Your task to perform on an android device: toggle wifi Image 0: 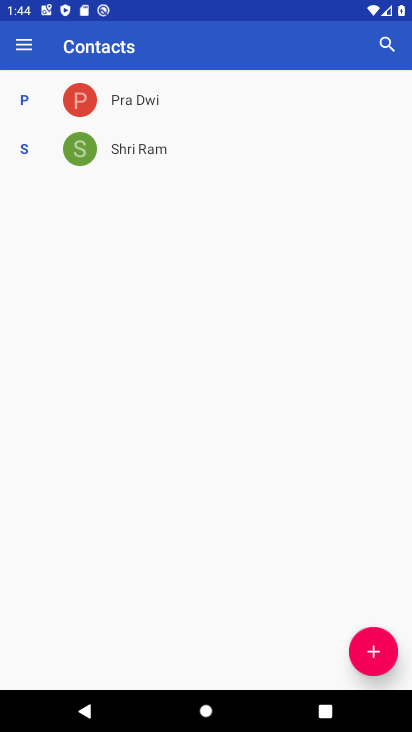
Step 0: press home button
Your task to perform on an android device: toggle wifi Image 1: 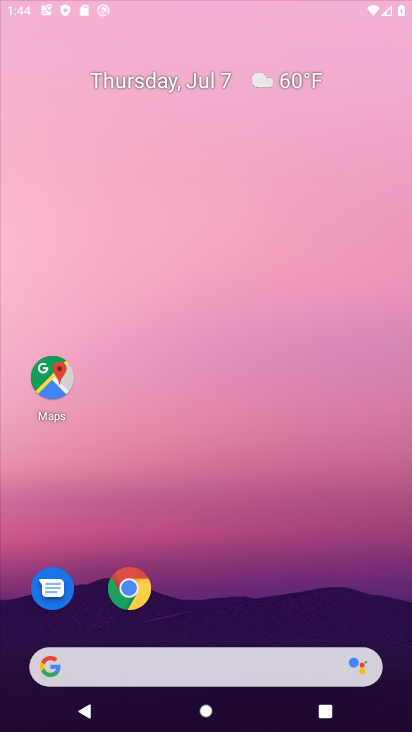
Step 1: press home button
Your task to perform on an android device: toggle wifi Image 2: 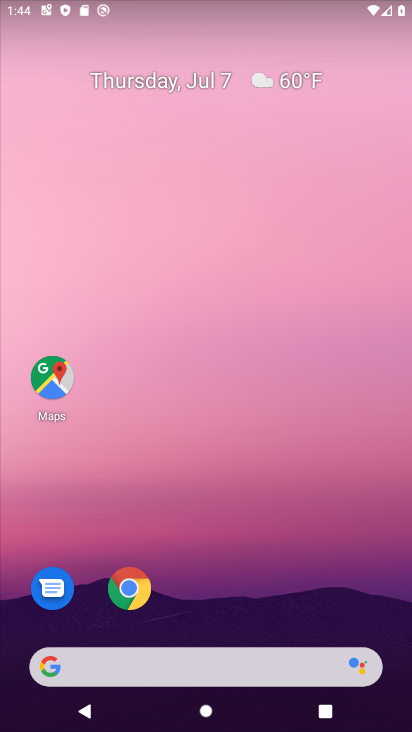
Step 2: drag from (245, 585) to (251, 400)
Your task to perform on an android device: toggle wifi Image 3: 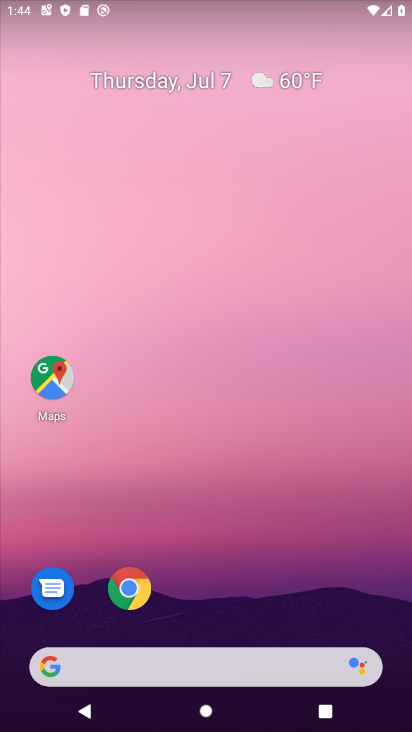
Step 3: drag from (237, 439) to (264, 175)
Your task to perform on an android device: toggle wifi Image 4: 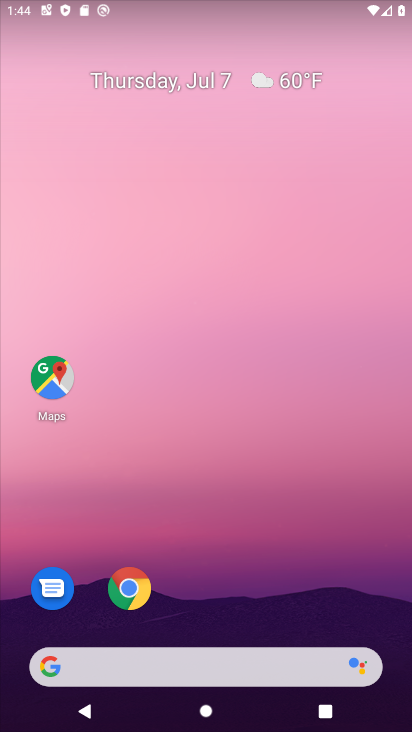
Step 4: drag from (154, 548) to (289, 160)
Your task to perform on an android device: toggle wifi Image 5: 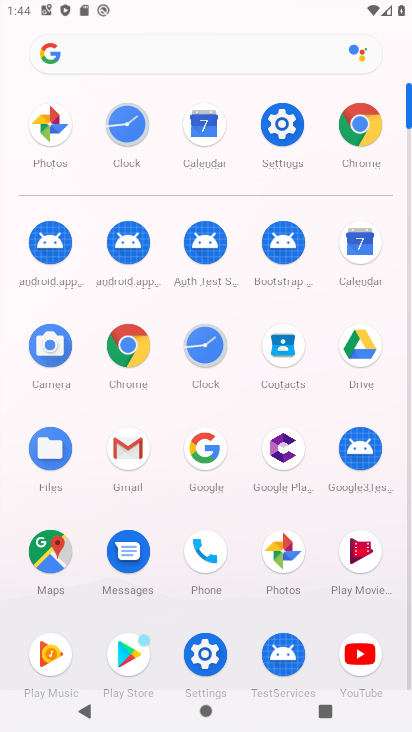
Step 5: click (283, 131)
Your task to perform on an android device: toggle wifi Image 6: 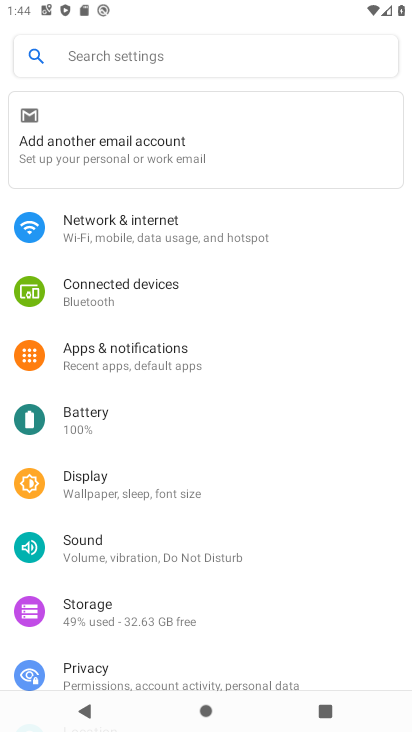
Step 6: click (244, 228)
Your task to perform on an android device: toggle wifi Image 7: 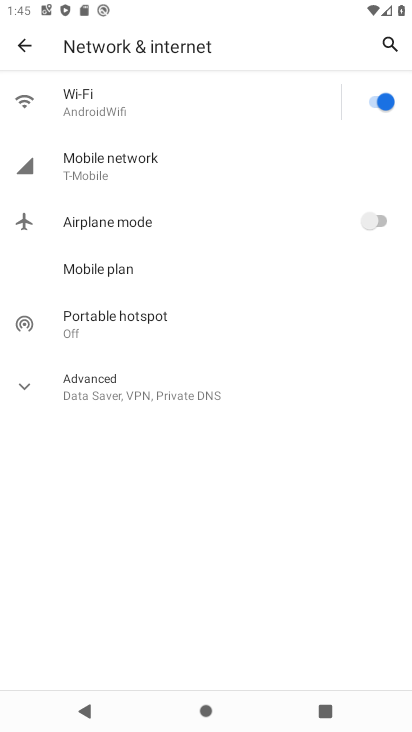
Step 7: click (370, 99)
Your task to perform on an android device: toggle wifi Image 8: 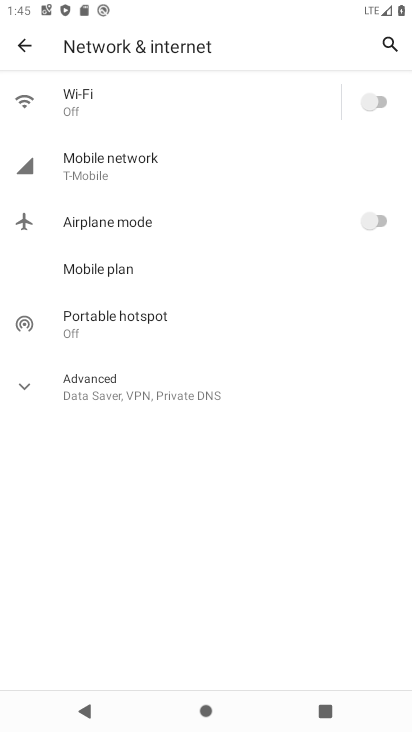
Step 8: task complete